Your task to perform on an android device: Go to privacy settings Image 0: 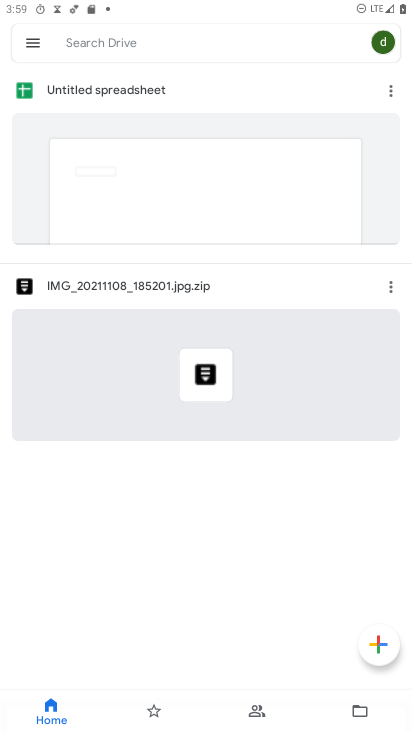
Step 0: press home button
Your task to perform on an android device: Go to privacy settings Image 1: 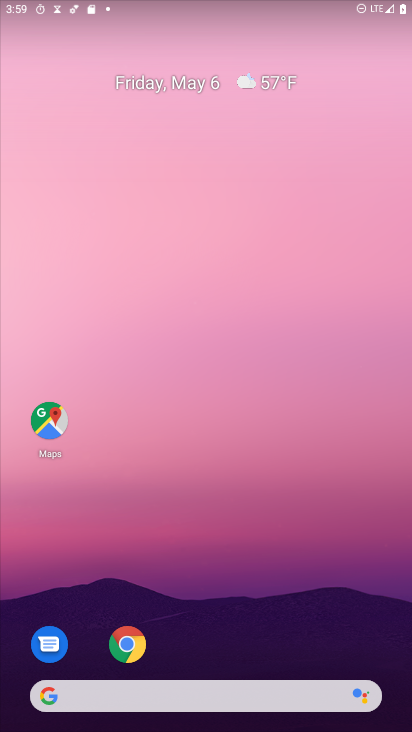
Step 1: drag from (183, 728) to (180, 237)
Your task to perform on an android device: Go to privacy settings Image 2: 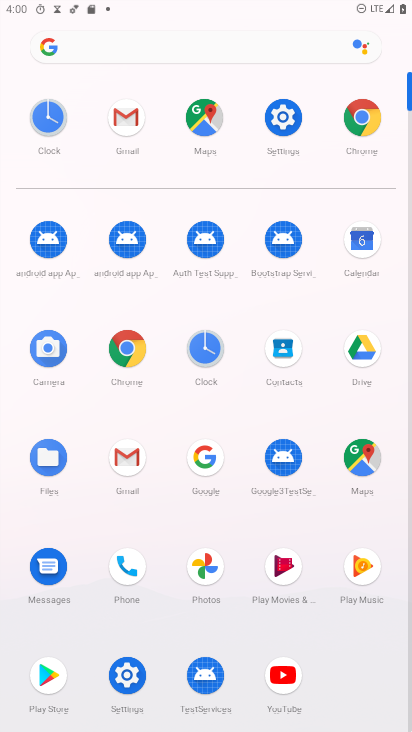
Step 2: click (286, 121)
Your task to perform on an android device: Go to privacy settings Image 3: 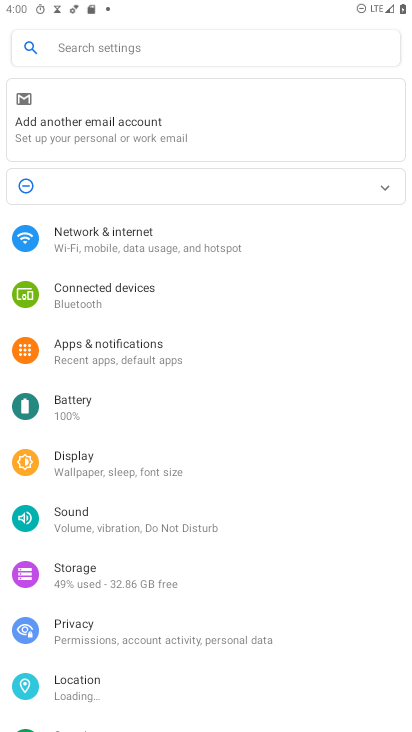
Step 3: click (78, 635)
Your task to perform on an android device: Go to privacy settings Image 4: 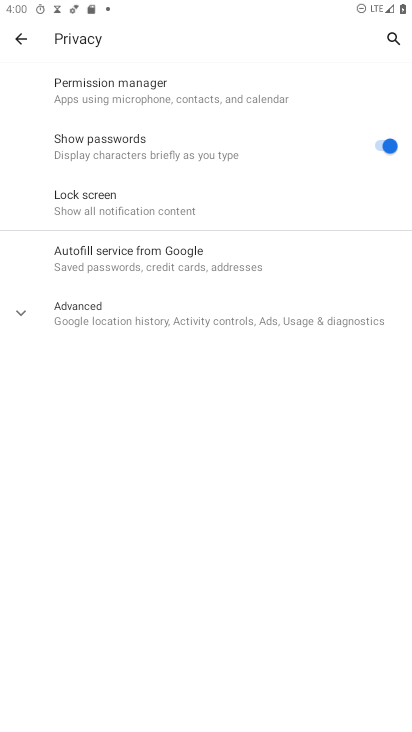
Step 4: task complete